Your task to perform on an android device: turn off priority inbox in the gmail app Image 0: 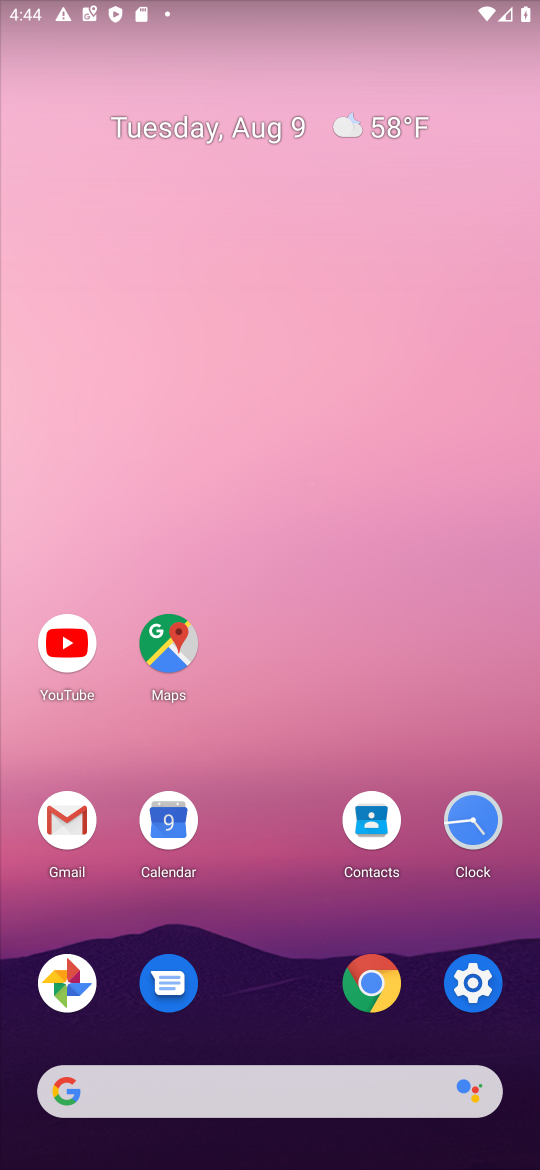
Step 0: click (63, 823)
Your task to perform on an android device: turn off priority inbox in the gmail app Image 1: 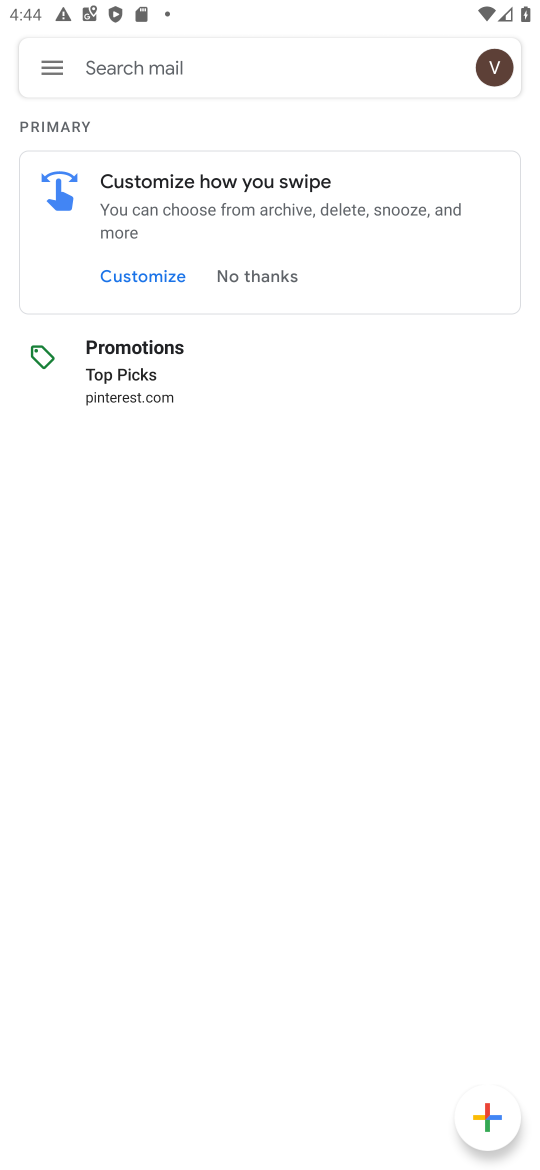
Step 1: click (47, 71)
Your task to perform on an android device: turn off priority inbox in the gmail app Image 2: 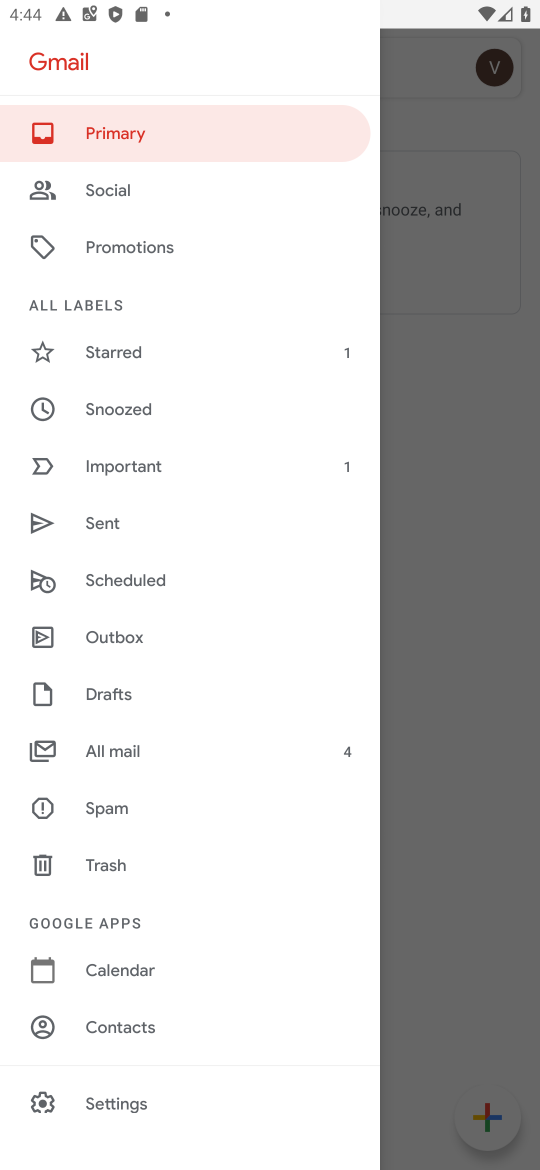
Step 2: click (122, 1104)
Your task to perform on an android device: turn off priority inbox in the gmail app Image 3: 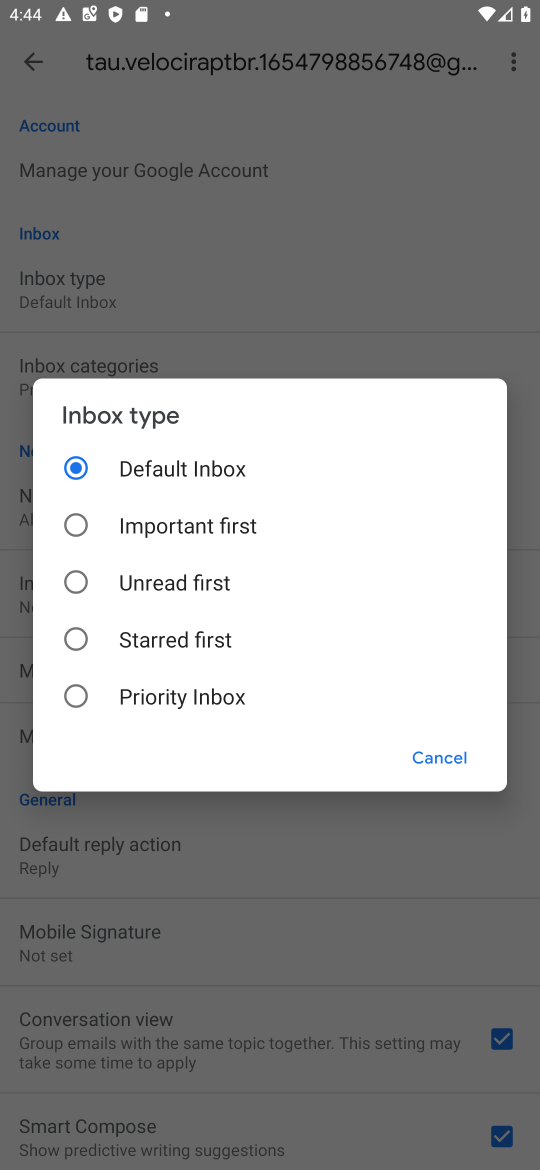
Step 3: task complete